Your task to perform on an android device: add a contact in the contacts app Image 0: 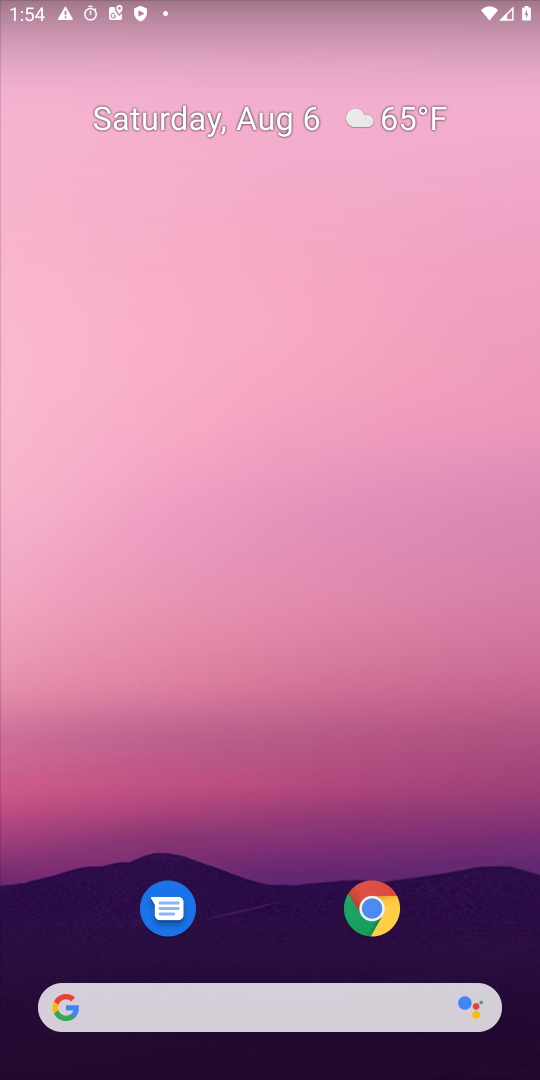
Step 0: drag from (277, 919) to (302, 17)
Your task to perform on an android device: add a contact in the contacts app Image 1: 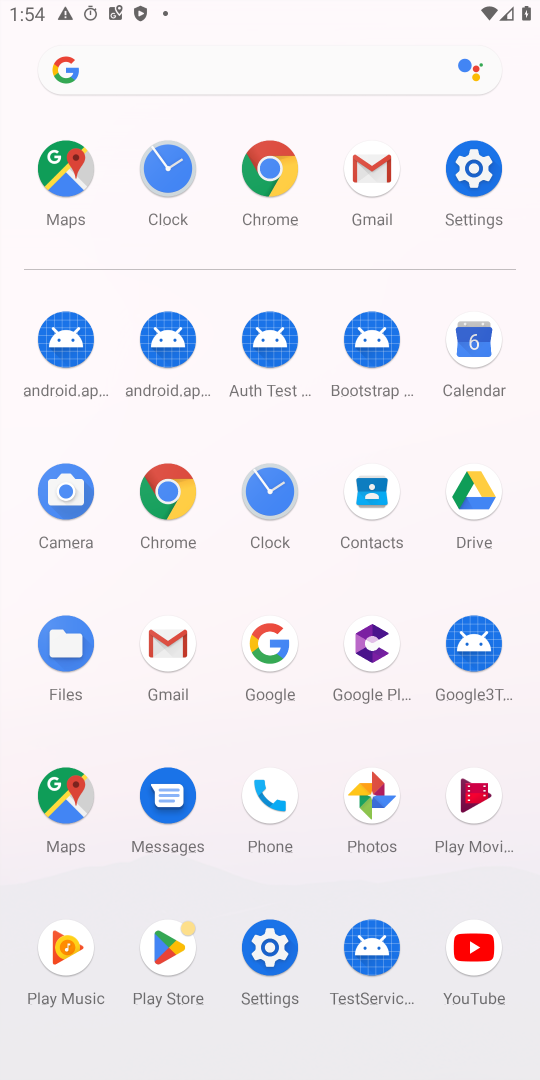
Step 1: click (381, 491)
Your task to perform on an android device: add a contact in the contacts app Image 2: 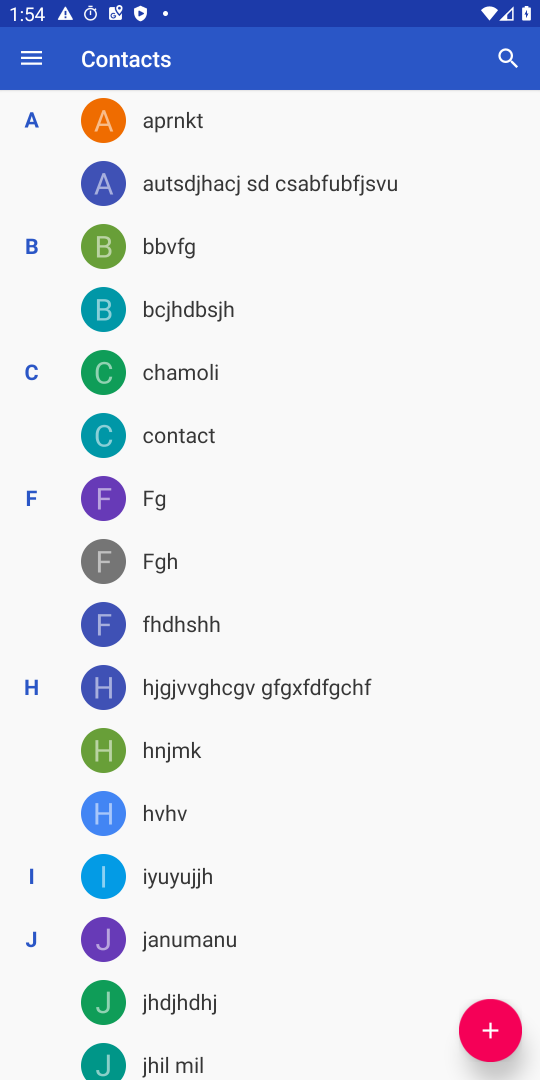
Step 2: click (497, 1029)
Your task to perform on an android device: add a contact in the contacts app Image 3: 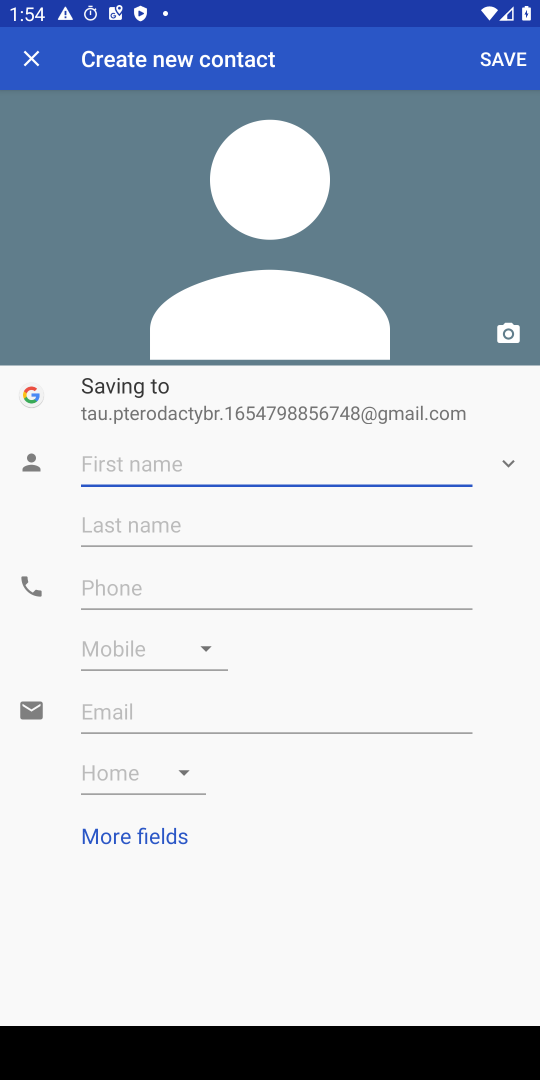
Step 3: type "nmjkuiolp"
Your task to perform on an android device: add a contact in the contacts app Image 4: 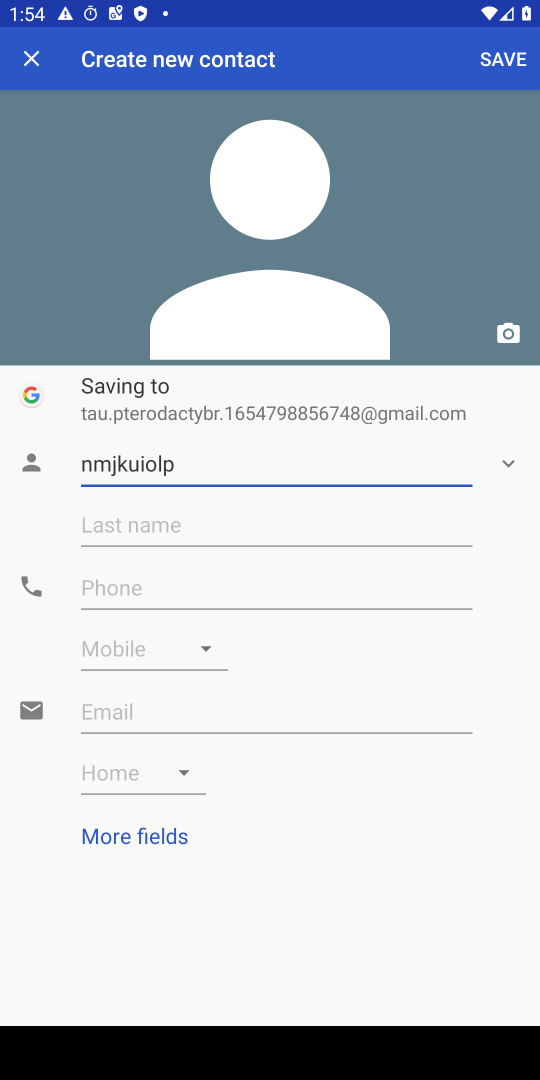
Step 4: click (91, 593)
Your task to perform on an android device: add a contact in the contacts app Image 5: 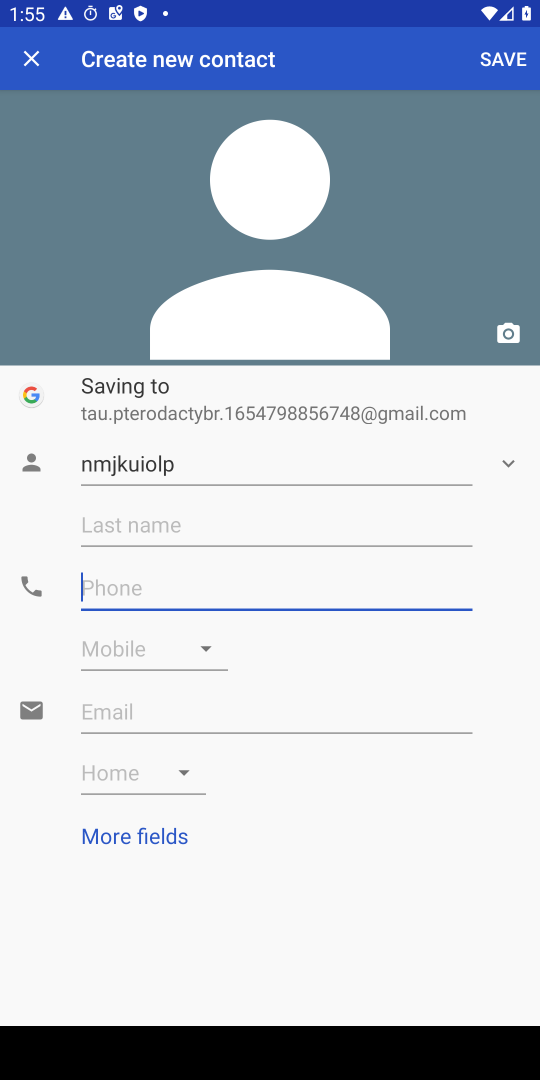
Step 5: type "8976545698"
Your task to perform on an android device: add a contact in the contacts app Image 6: 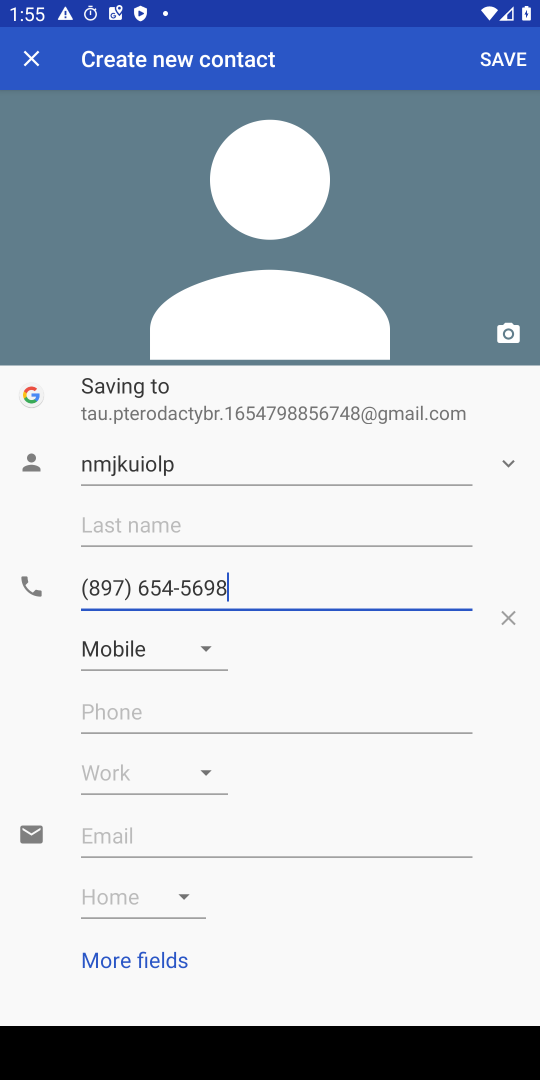
Step 6: click (485, 62)
Your task to perform on an android device: add a contact in the contacts app Image 7: 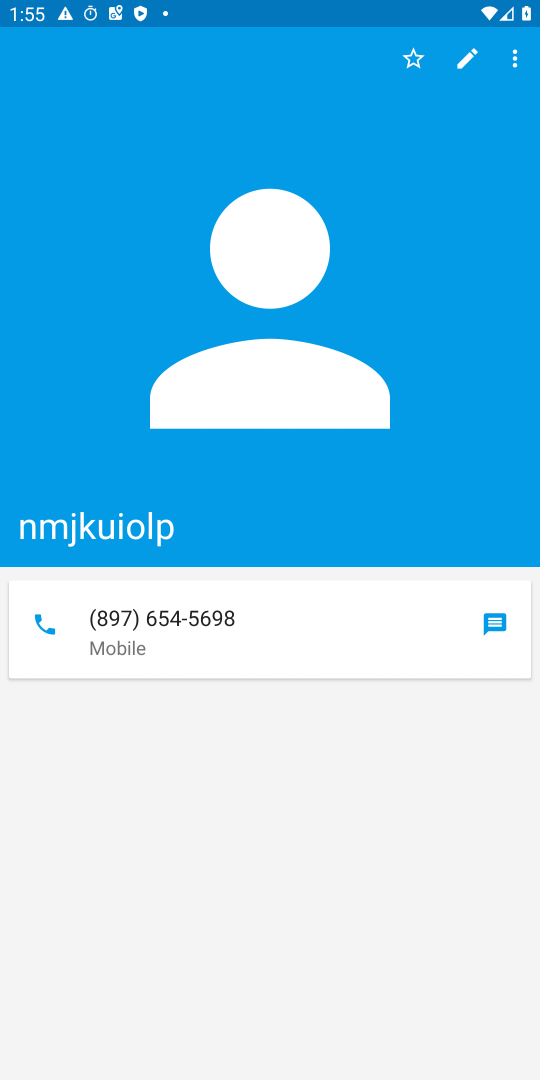
Step 7: task complete